Your task to perform on an android device: search for starred emails in the gmail app Image 0: 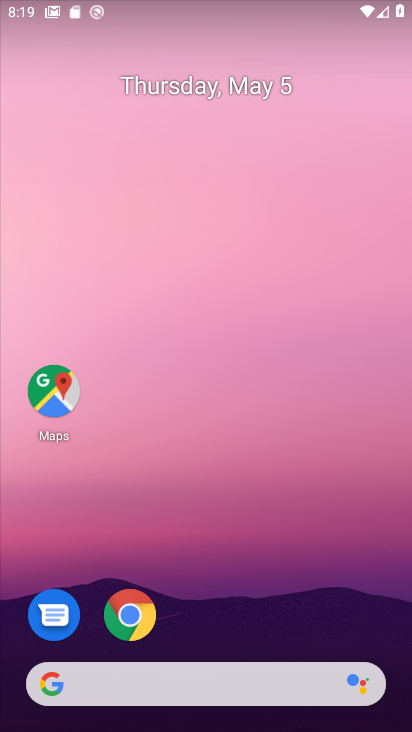
Step 0: drag from (199, 623) to (253, 188)
Your task to perform on an android device: search for starred emails in the gmail app Image 1: 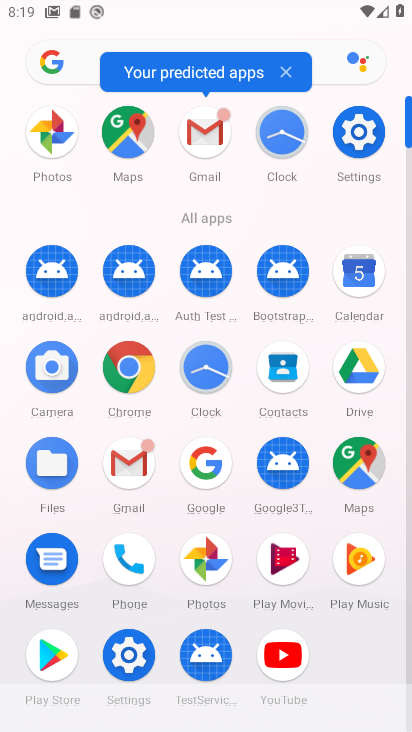
Step 1: click (203, 133)
Your task to perform on an android device: search for starred emails in the gmail app Image 2: 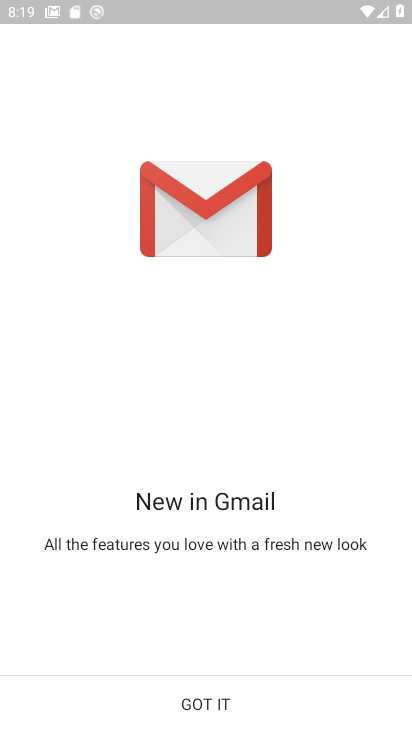
Step 2: click (227, 701)
Your task to perform on an android device: search for starred emails in the gmail app Image 3: 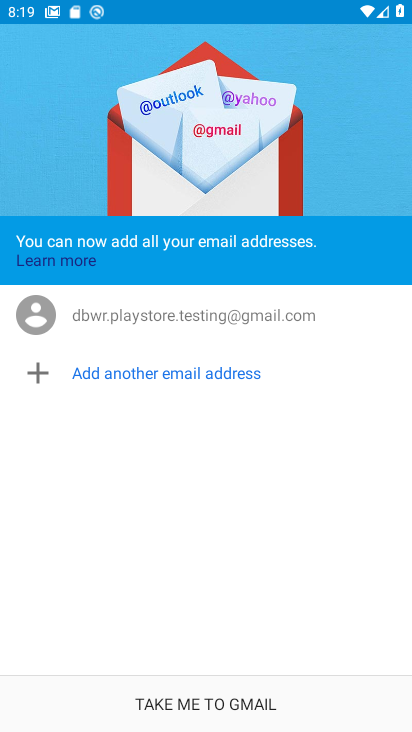
Step 3: click (201, 705)
Your task to perform on an android device: search for starred emails in the gmail app Image 4: 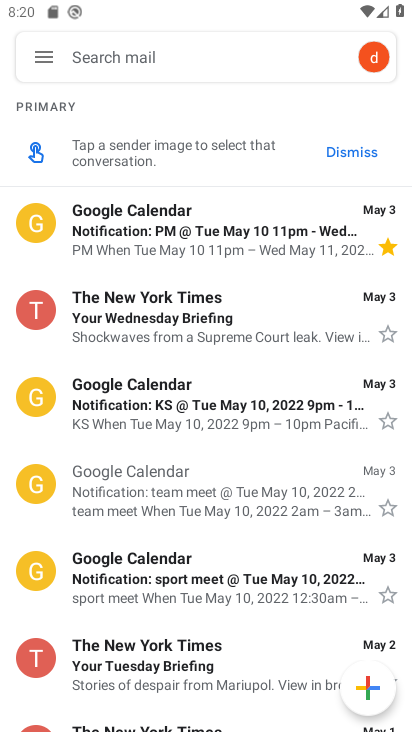
Step 4: click (45, 54)
Your task to perform on an android device: search for starred emails in the gmail app Image 5: 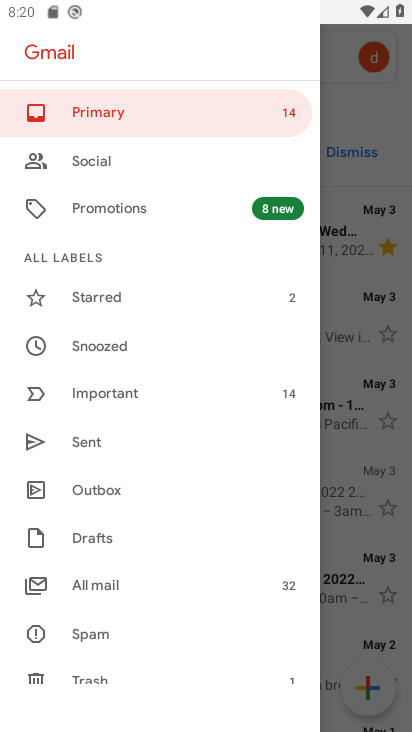
Step 5: click (115, 300)
Your task to perform on an android device: search for starred emails in the gmail app Image 6: 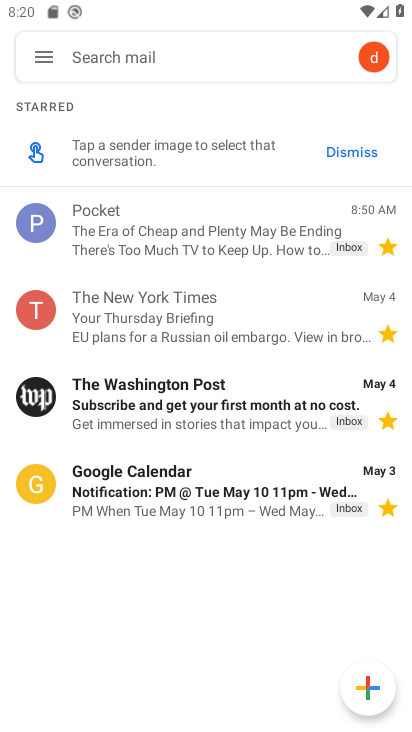
Step 6: task complete